Your task to perform on an android device: Clear the cart on amazon.com. Search for dell alienware on amazon.com, select the first entry, and add it to the cart. Image 0: 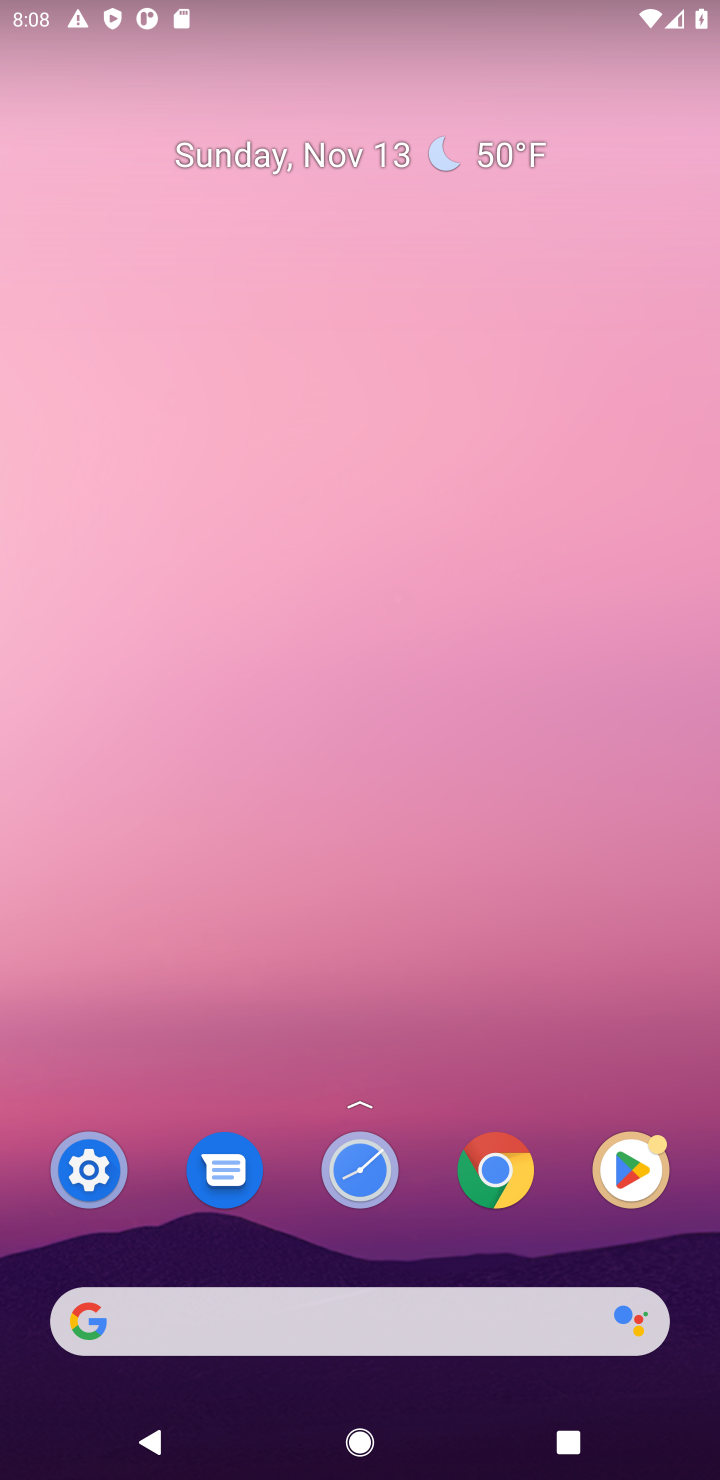
Step 0: click (271, 1331)
Your task to perform on an android device: Clear the cart on amazon.com. Search for dell alienware on amazon.com, select the first entry, and add it to the cart. Image 1: 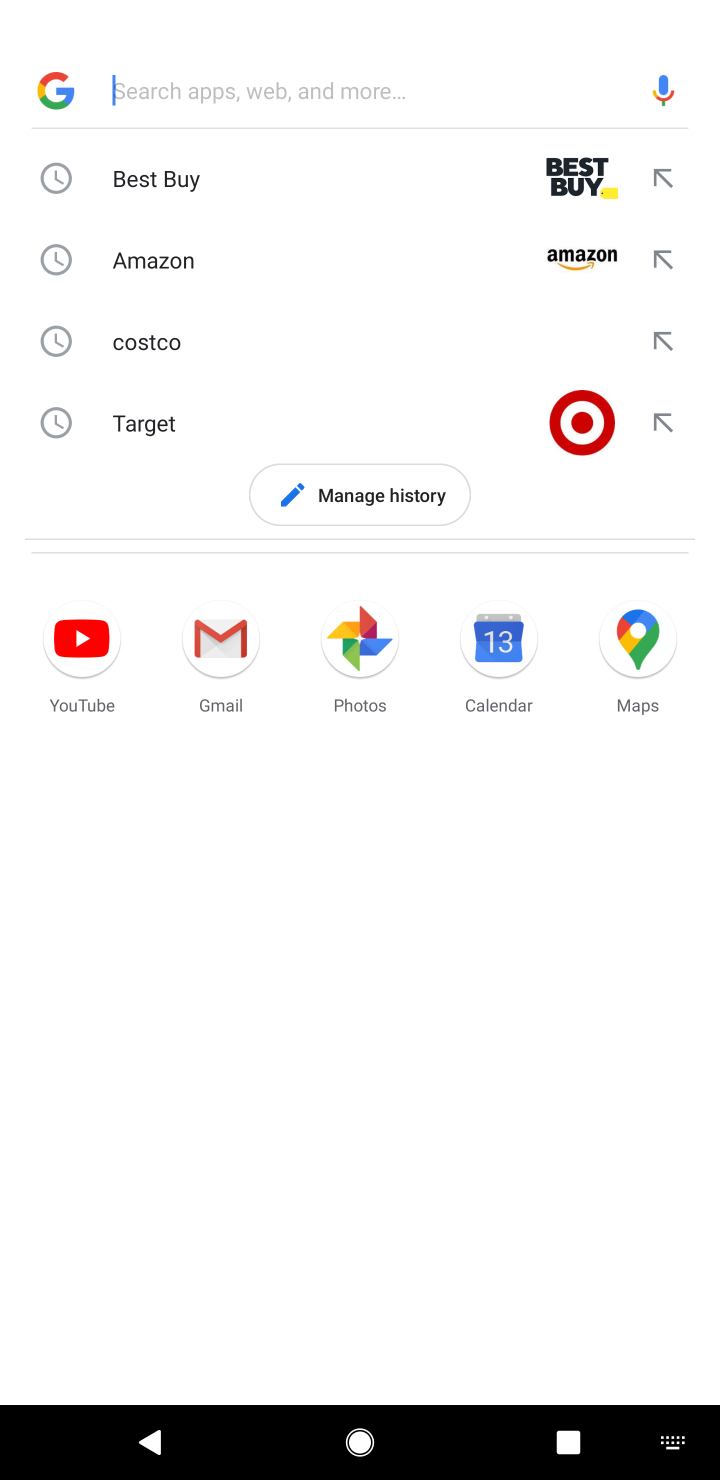
Step 1: click (295, 286)
Your task to perform on an android device: Clear the cart on amazon.com. Search for dell alienware on amazon.com, select the first entry, and add it to the cart. Image 2: 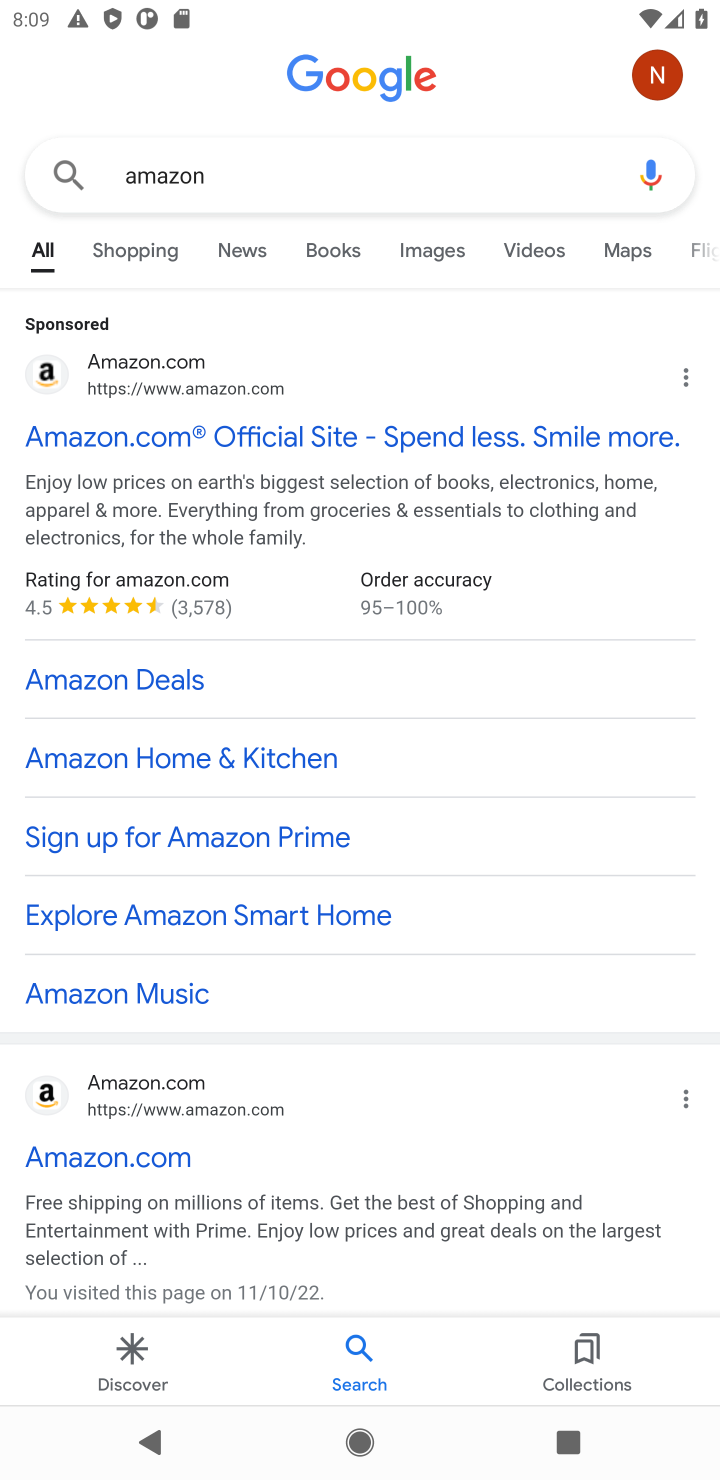
Step 2: click (272, 421)
Your task to perform on an android device: Clear the cart on amazon.com. Search for dell alienware on amazon.com, select the first entry, and add it to the cart. Image 3: 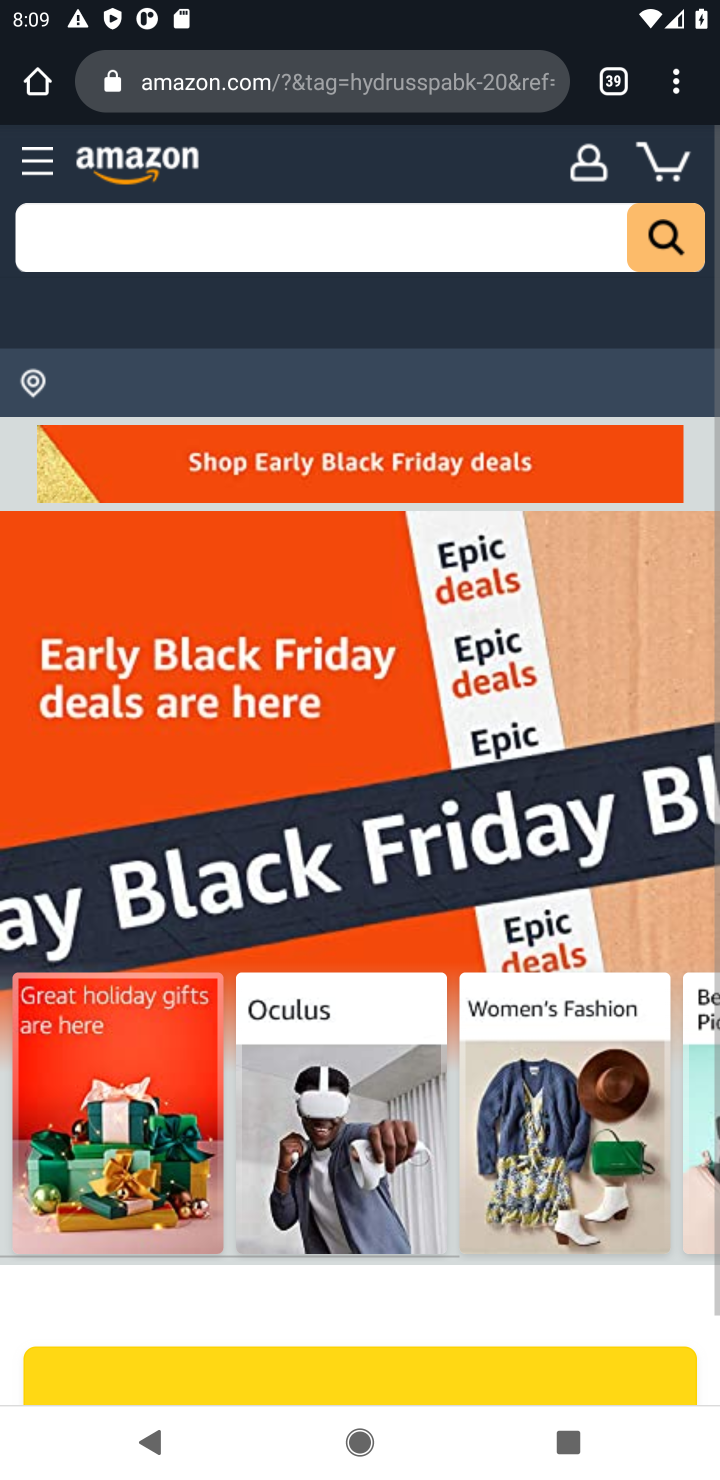
Step 3: task complete